Your task to perform on an android device: turn off improve location accuracy Image 0: 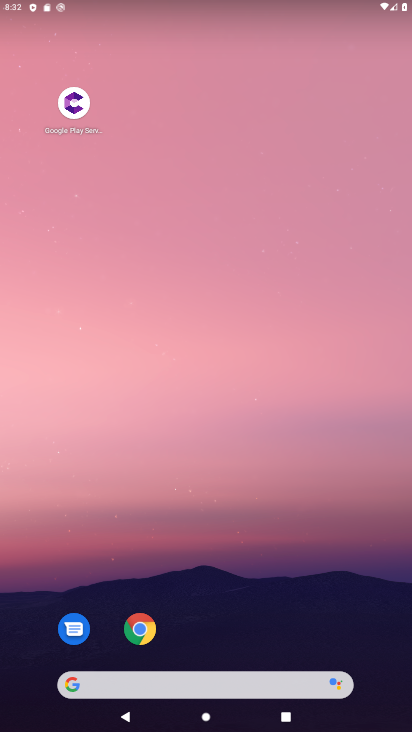
Step 0: drag from (237, 630) to (120, 10)
Your task to perform on an android device: turn off improve location accuracy Image 1: 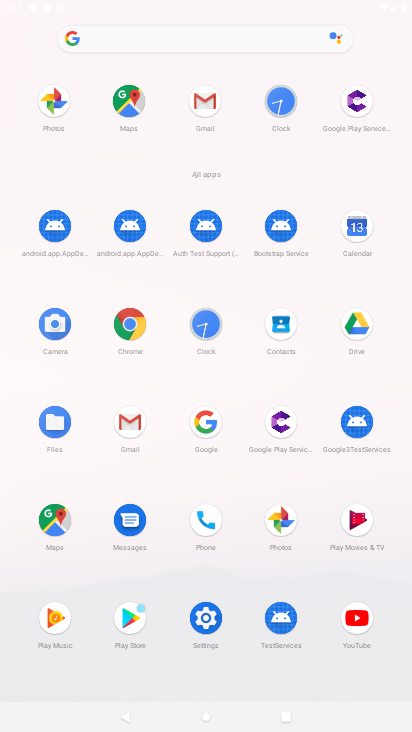
Step 1: click (214, 606)
Your task to perform on an android device: turn off improve location accuracy Image 2: 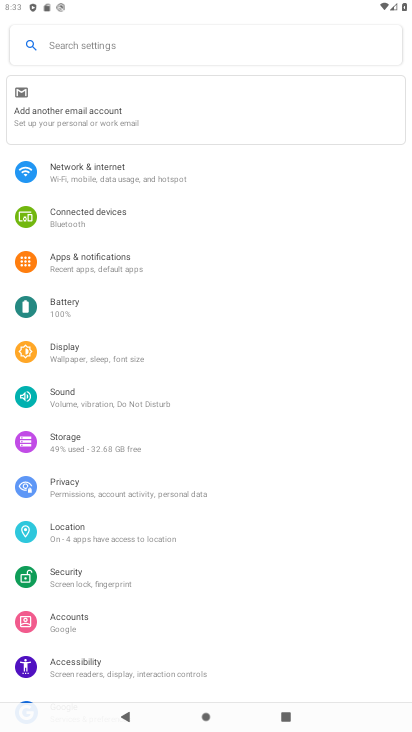
Step 2: click (44, 526)
Your task to perform on an android device: turn off improve location accuracy Image 3: 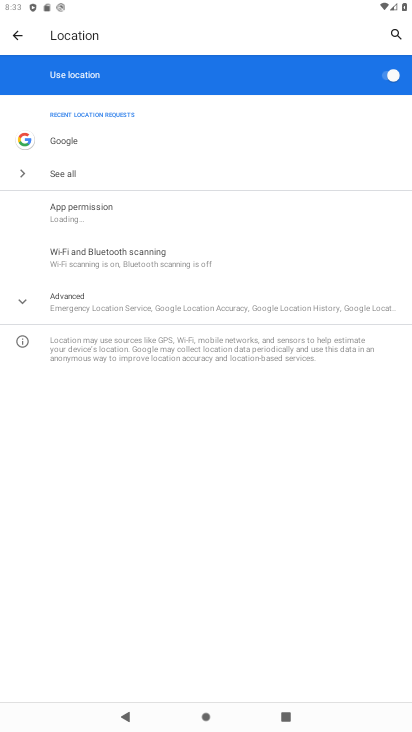
Step 3: click (85, 306)
Your task to perform on an android device: turn off improve location accuracy Image 4: 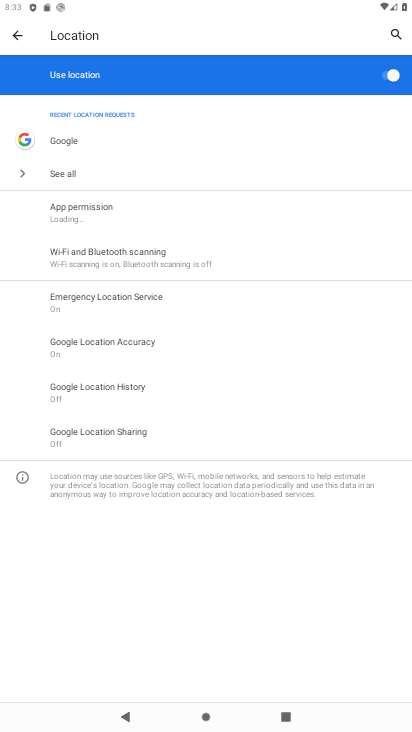
Step 4: click (122, 348)
Your task to perform on an android device: turn off improve location accuracy Image 5: 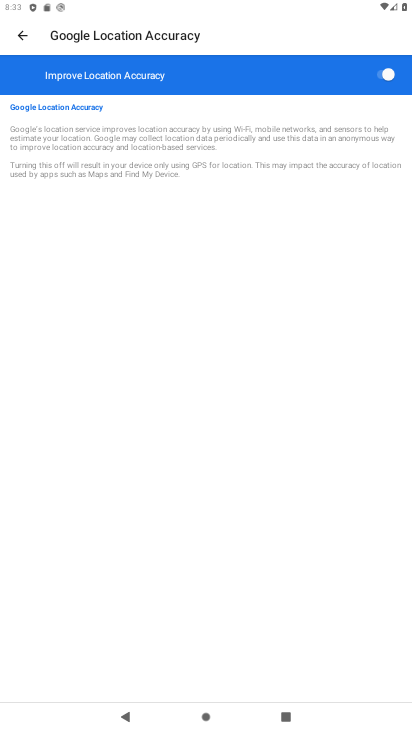
Step 5: click (365, 65)
Your task to perform on an android device: turn off improve location accuracy Image 6: 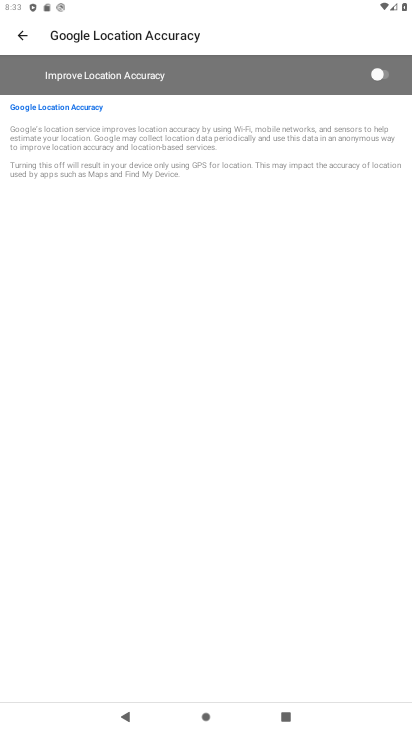
Step 6: task complete